Your task to perform on an android device: What's the news in Indonesia? Image 0: 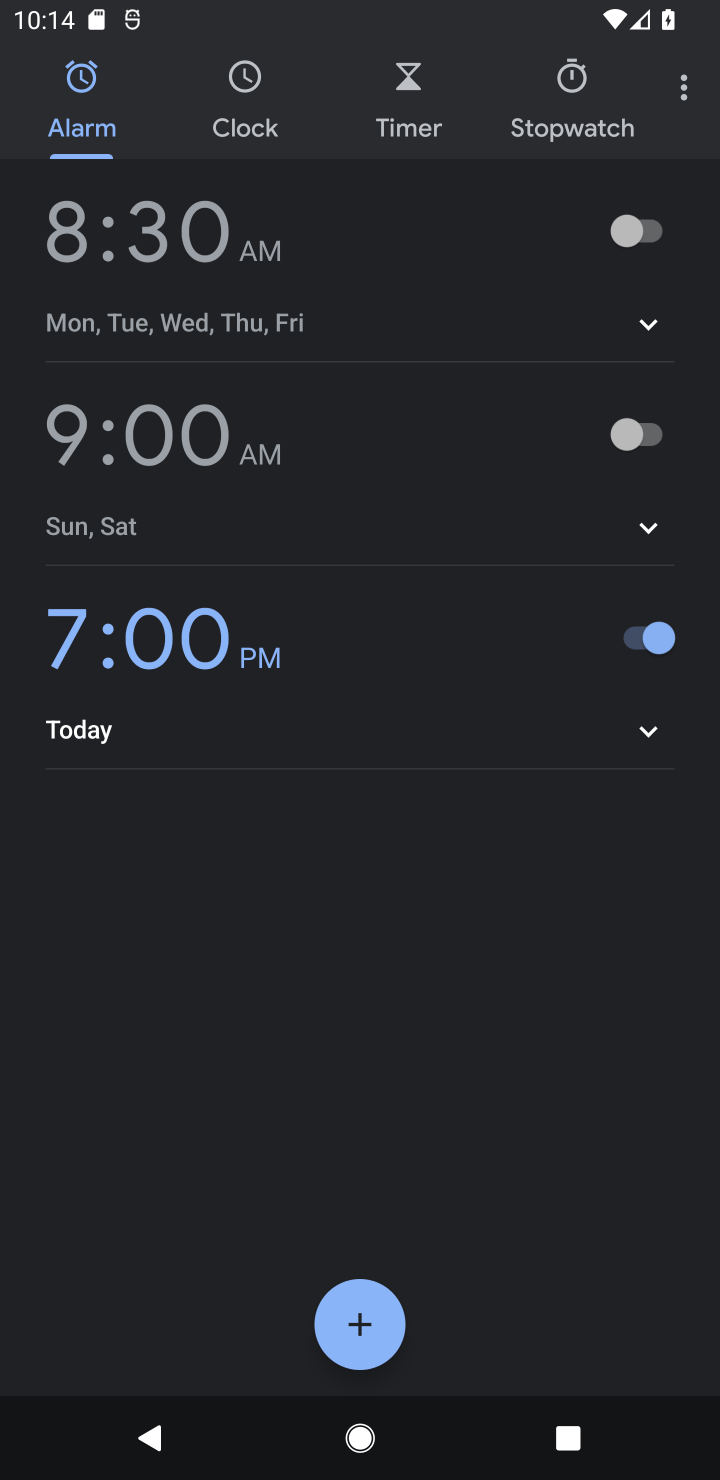
Step 0: press home button
Your task to perform on an android device: What's the news in Indonesia? Image 1: 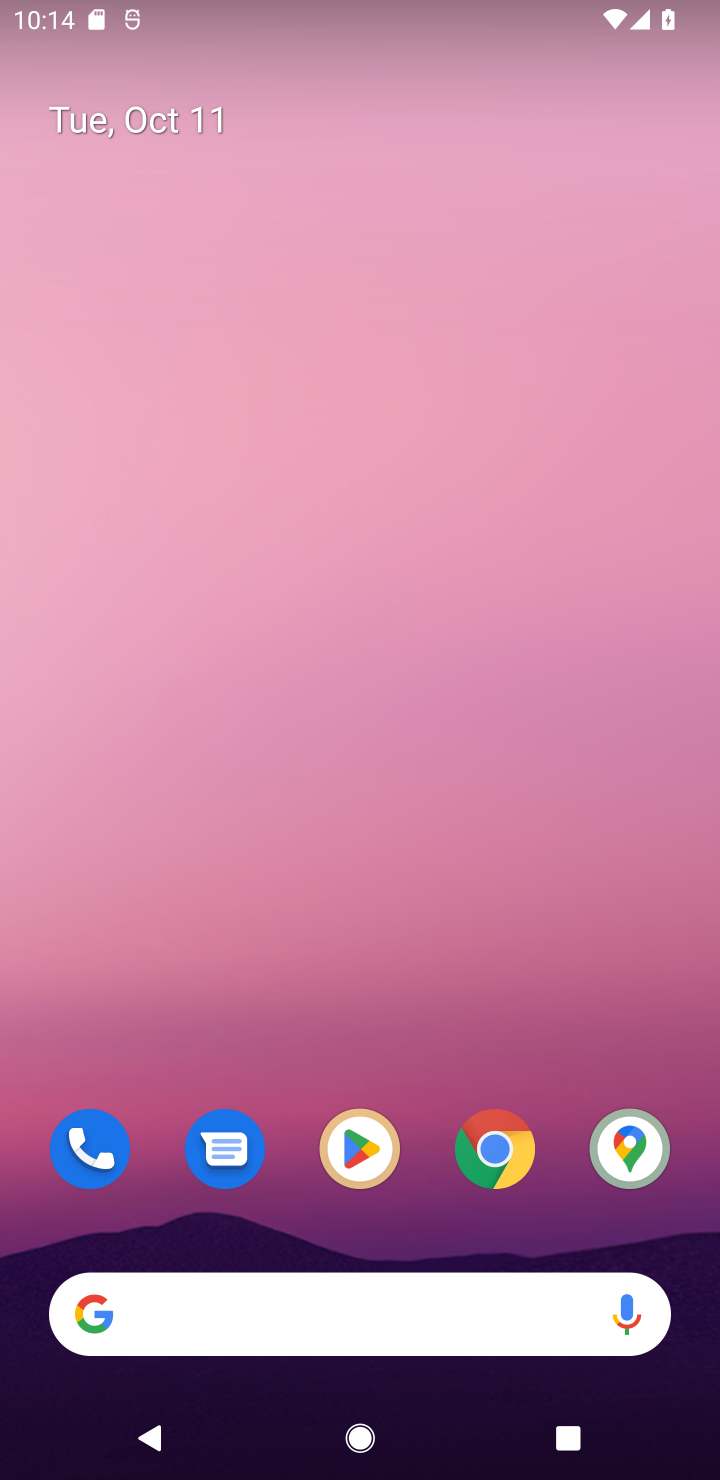
Step 1: click (347, 1286)
Your task to perform on an android device: What's the news in Indonesia? Image 2: 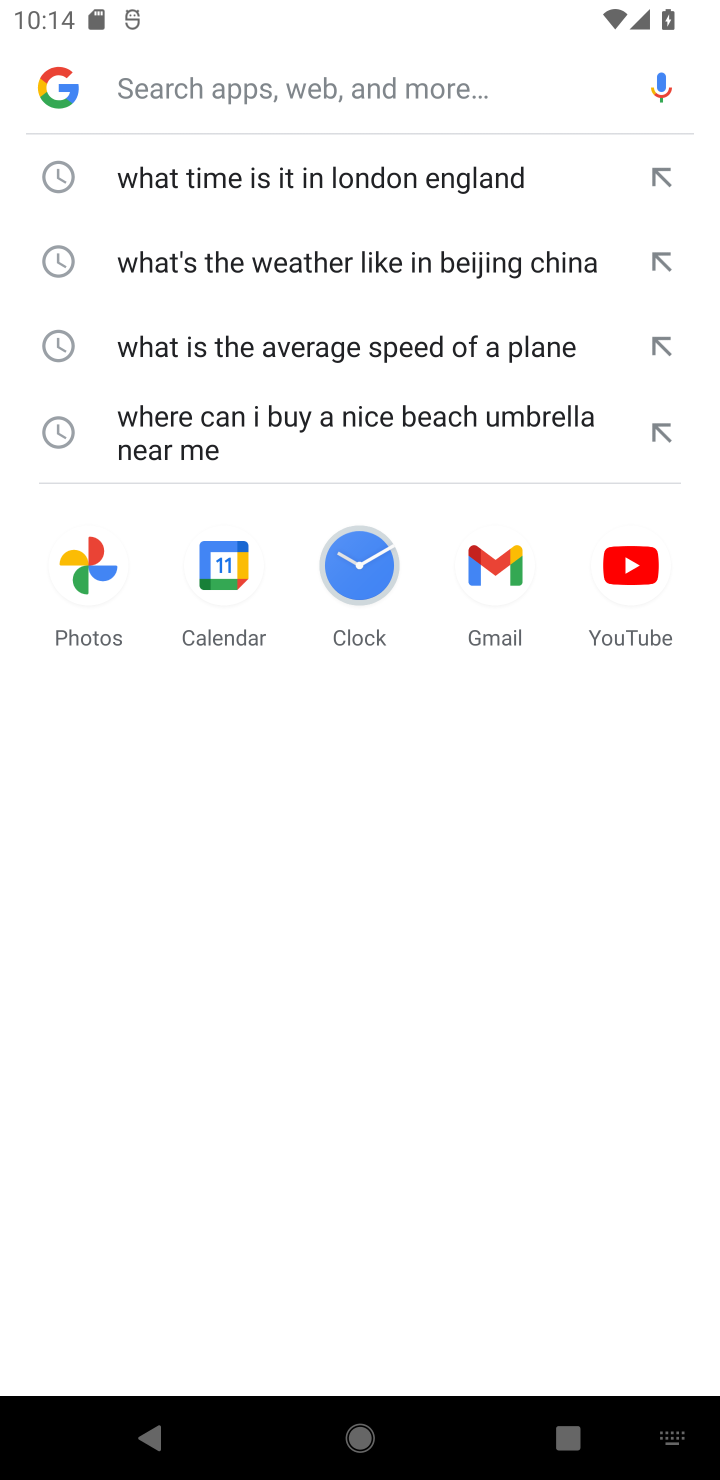
Step 2: click (314, 1318)
Your task to perform on an android device: What's the news in Indonesia? Image 3: 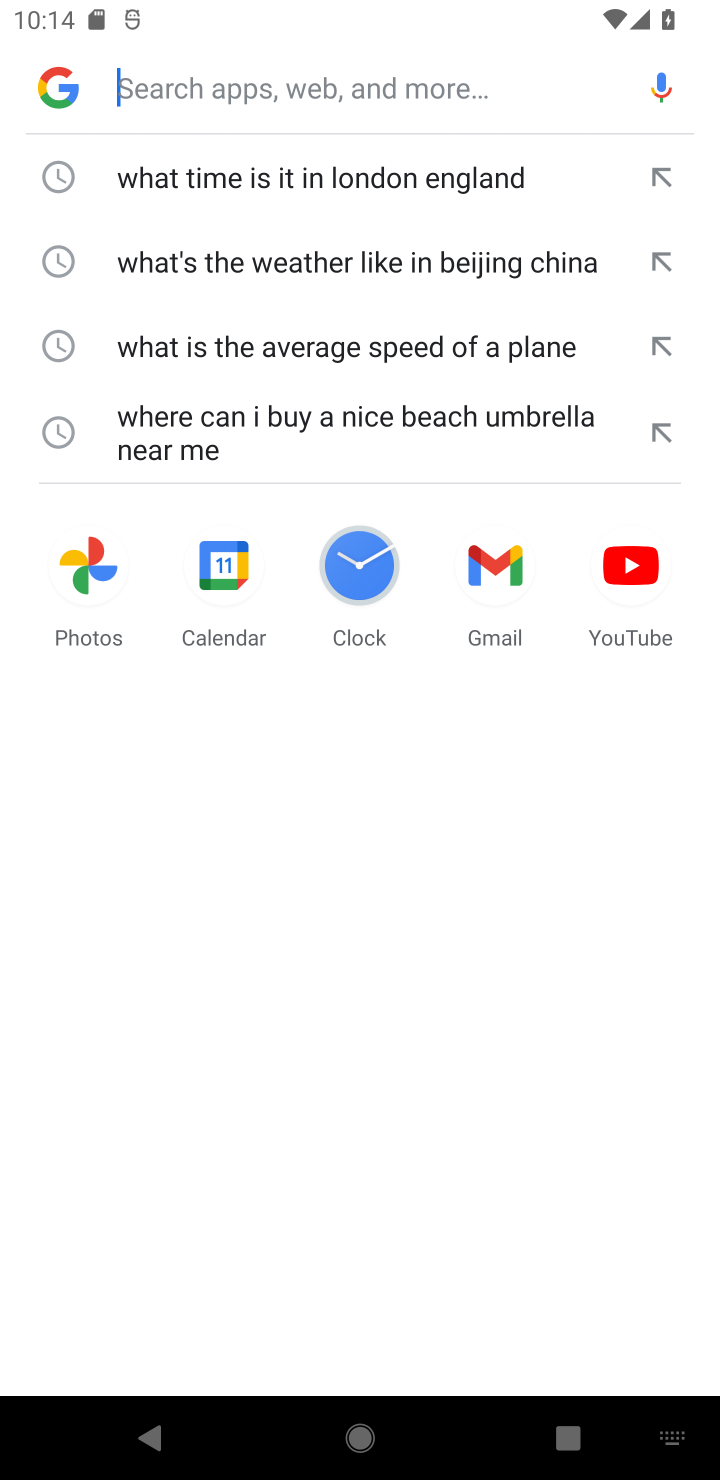
Step 3: type "What's the news in Indonesia?"
Your task to perform on an android device: What's the news in Indonesia? Image 4: 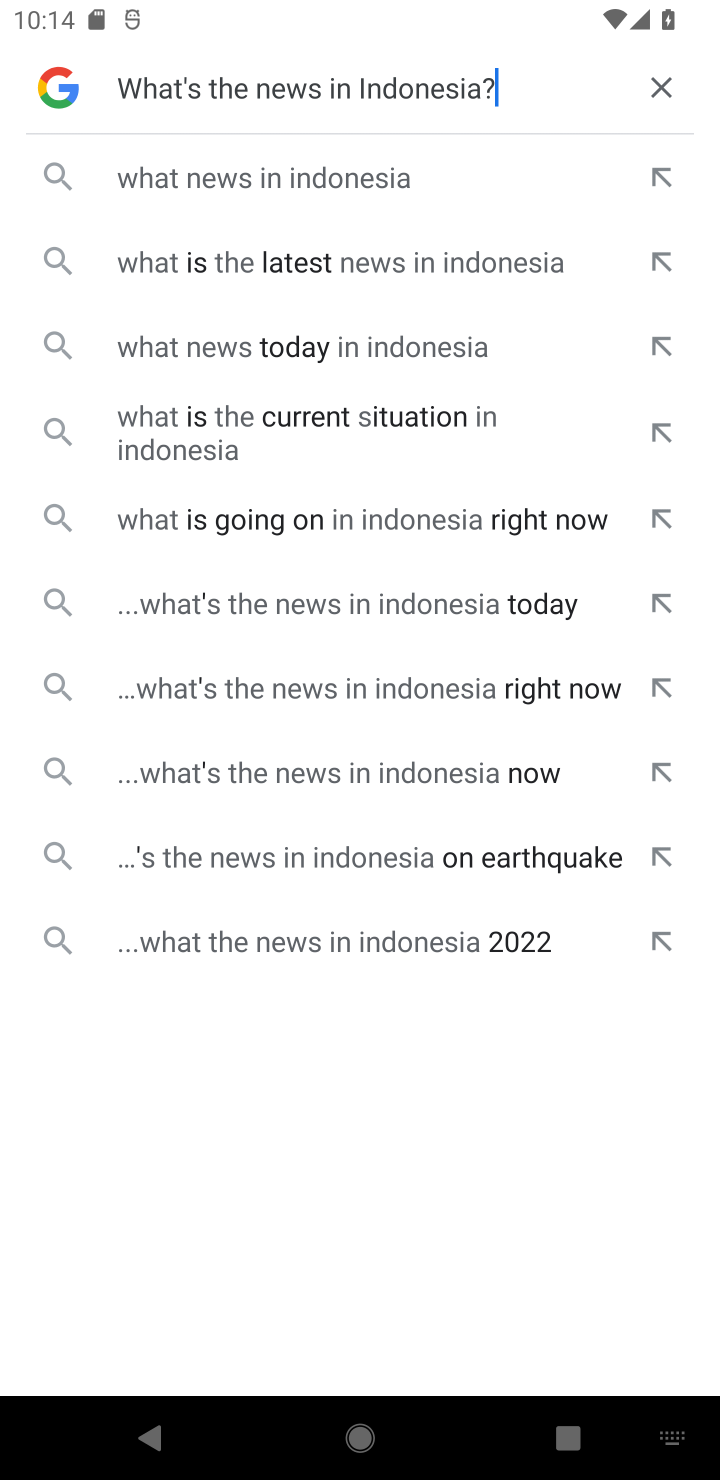
Step 4: click (295, 170)
Your task to perform on an android device: What's the news in Indonesia? Image 5: 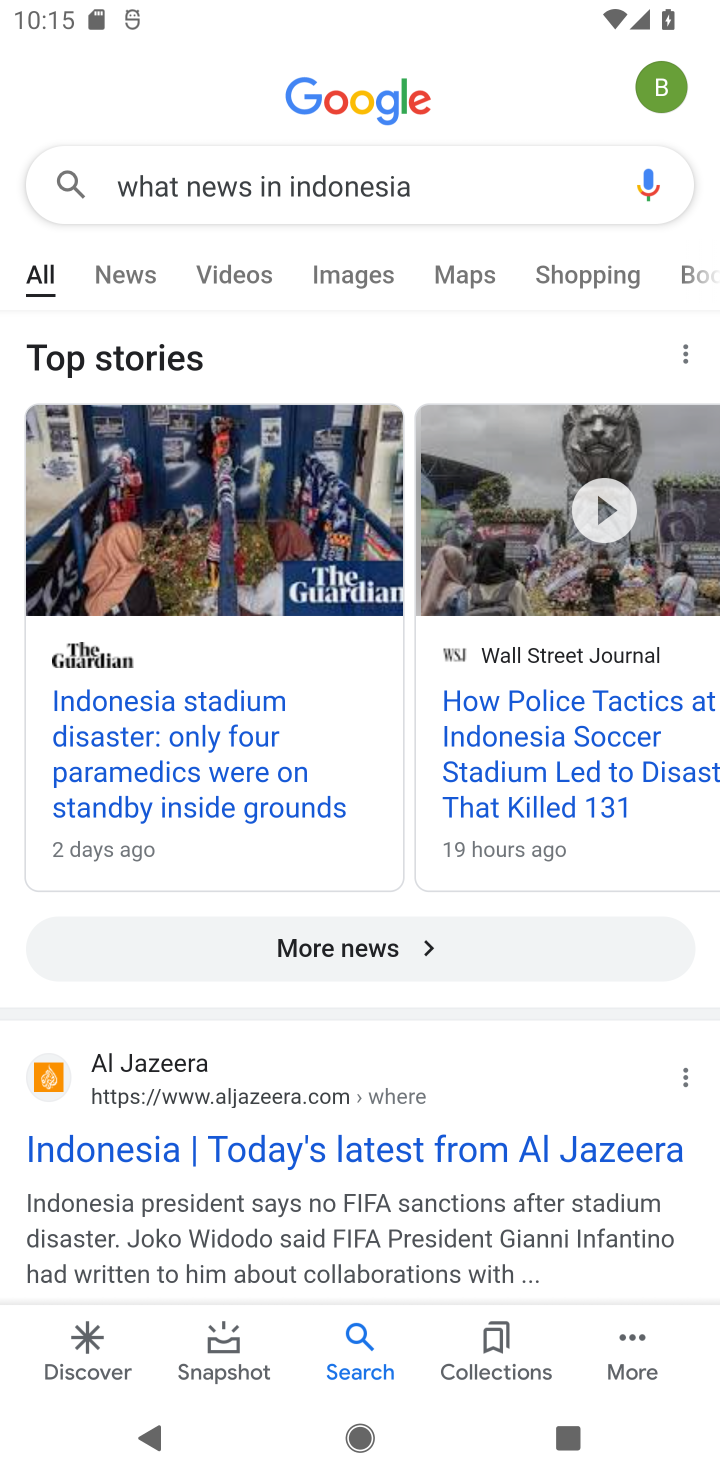
Step 5: click (134, 265)
Your task to perform on an android device: What's the news in Indonesia? Image 6: 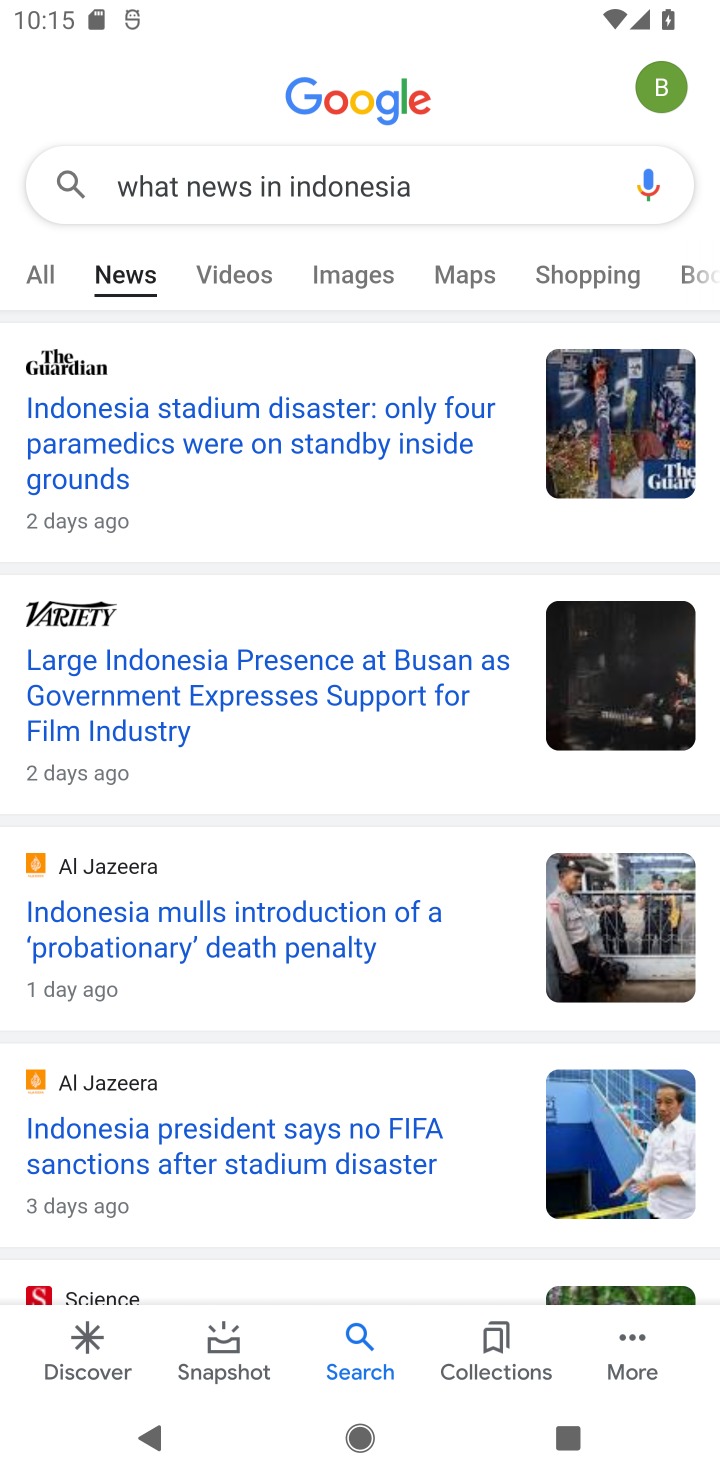
Step 6: click (389, 264)
Your task to perform on an android device: What's the news in Indonesia? Image 7: 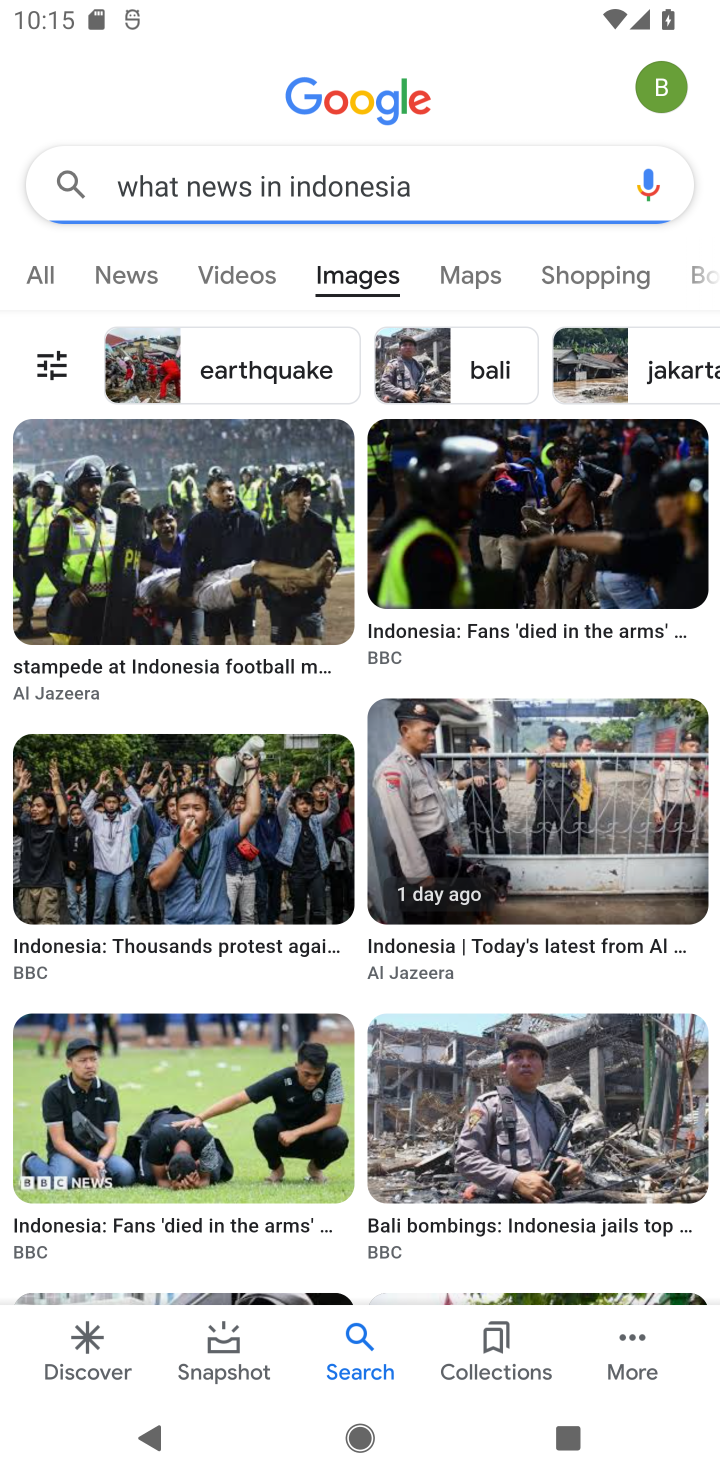
Step 7: task complete